Your task to perform on an android device: toggle translation in the chrome app Image 0: 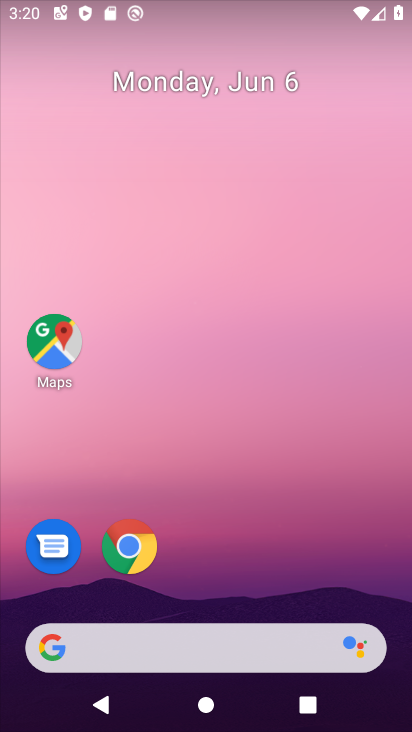
Step 0: click (109, 553)
Your task to perform on an android device: toggle translation in the chrome app Image 1: 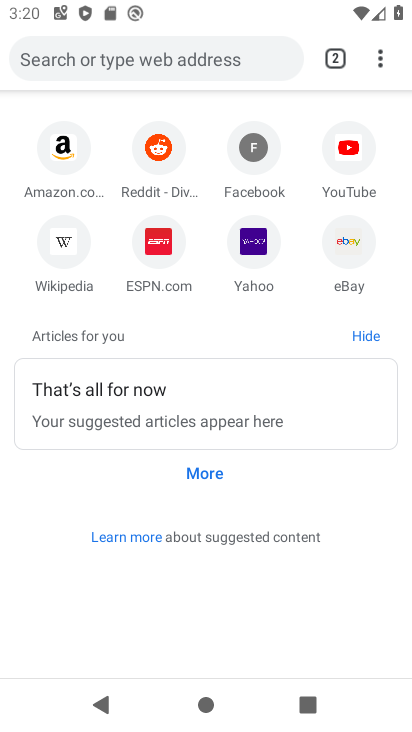
Step 1: click (388, 64)
Your task to perform on an android device: toggle translation in the chrome app Image 2: 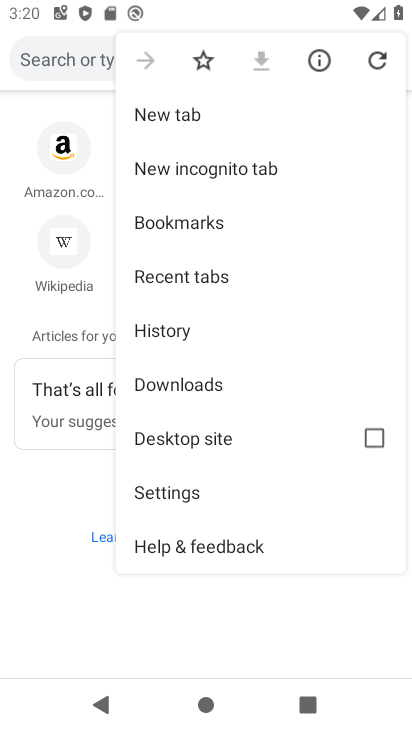
Step 2: click (190, 494)
Your task to perform on an android device: toggle translation in the chrome app Image 3: 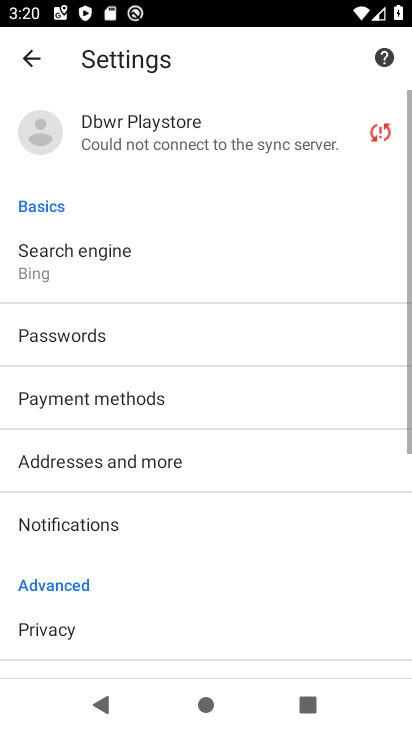
Step 3: drag from (138, 612) to (85, 332)
Your task to perform on an android device: toggle translation in the chrome app Image 4: 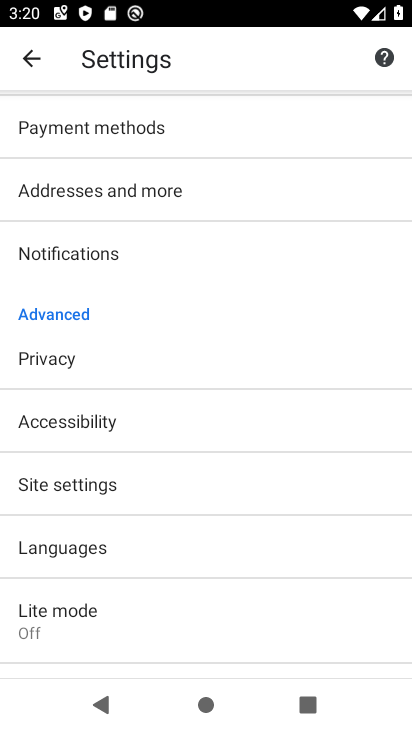
Step 4: click (83, 563)
Your task to perform on an android device: toggle translation in the chrome app Image 5: 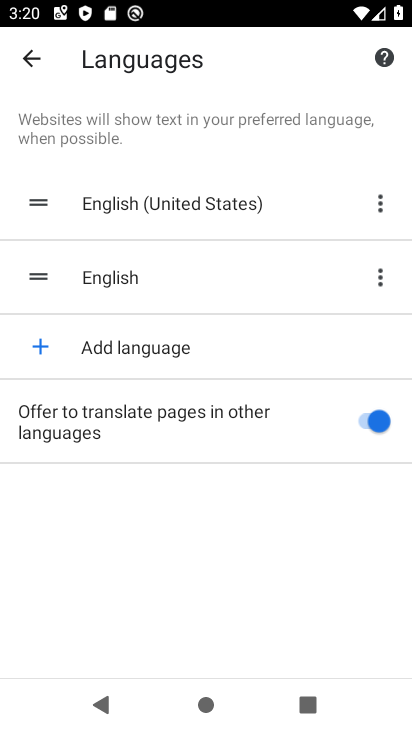
Step 5: click (275, 412)
Your task to perform on an android device: toggle translation in the chrome app Image 6: 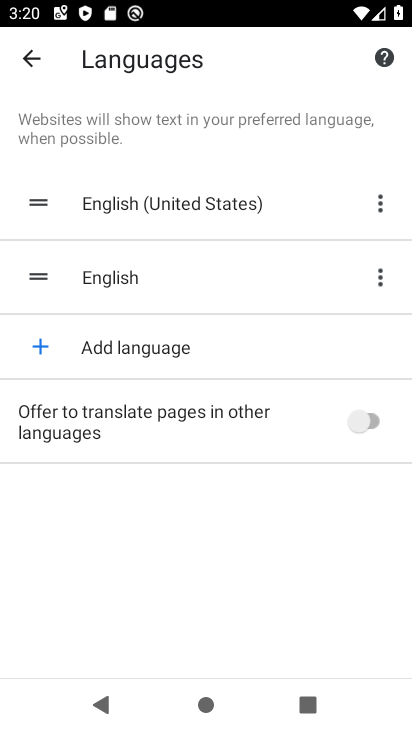
Step 6: task complete